Your task to perform on an android device: Open Chrome and go to the settings page Image 0: 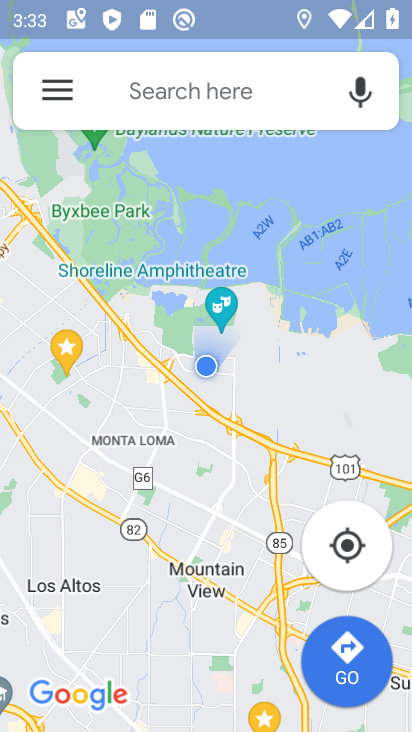
Step 0: press home button
Your task to perform on an android device: Open Chrome and go to the settings page Image 1: 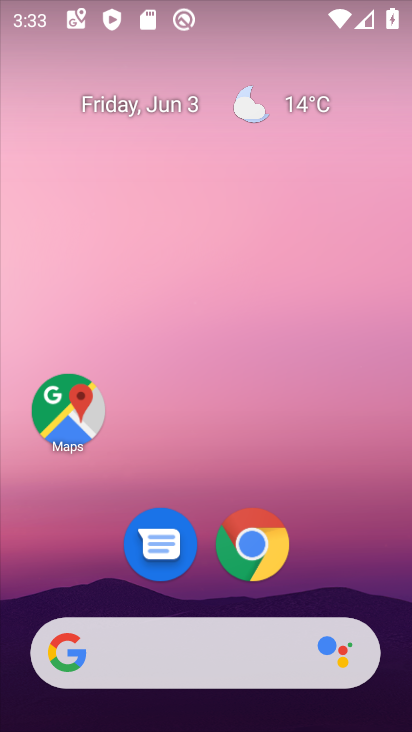
Step 1: click (257, 537)
Your task to perform on an android device: Open Chrome and go to the settings page Image 2: 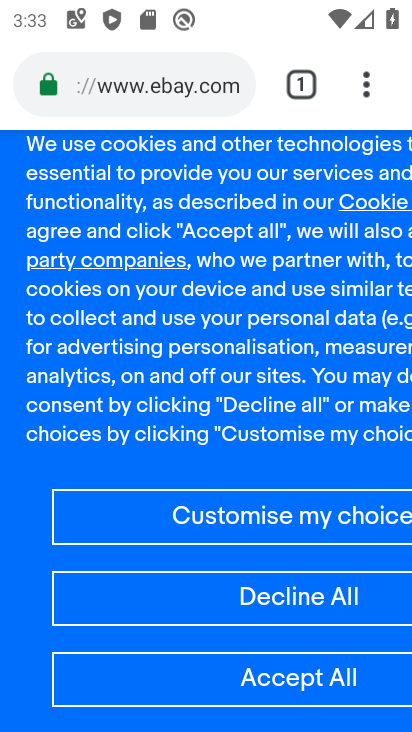
Step 2: click (367, 88)
Your task to perform on an android device: Open Chrome and go to the settings page Image 3: 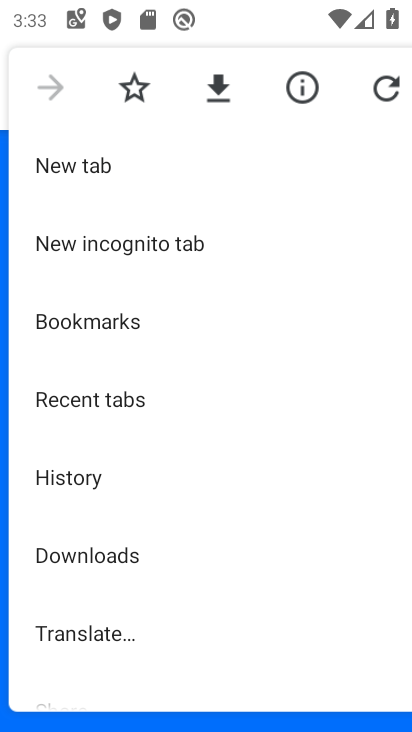
Step 3: drag from (150, 628) to (232, 177)
Your task to perform on an android device: Open Chrome and go to the settings page Image 4: 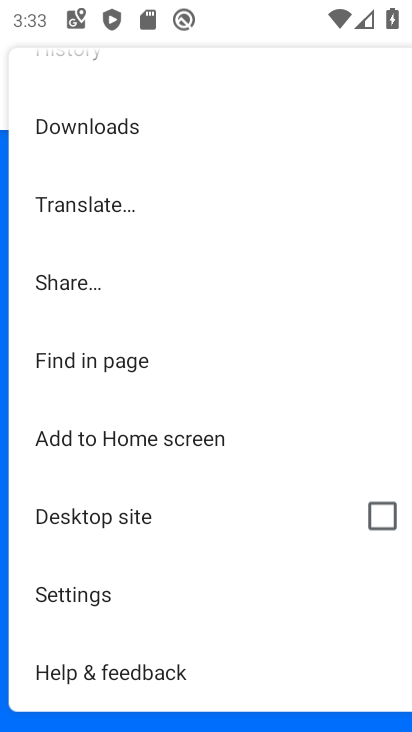
Step 4: click (58, 610)
Your task to perform on an android device: Open Chrome and go to the settings page Image 5: 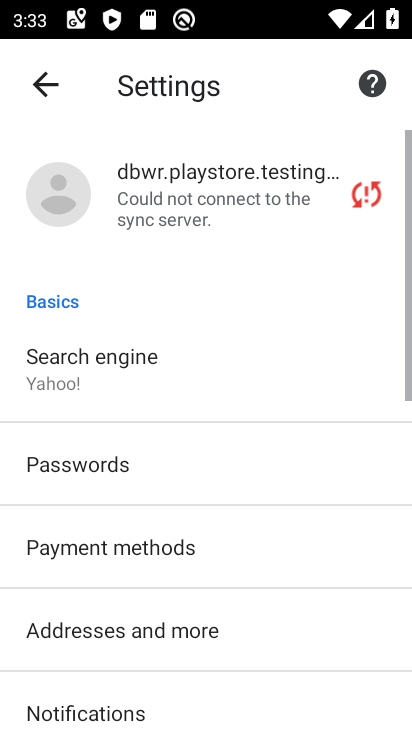
Step 5: task complete